Your task to perform on an android device: open device folders in google photos Image 0: 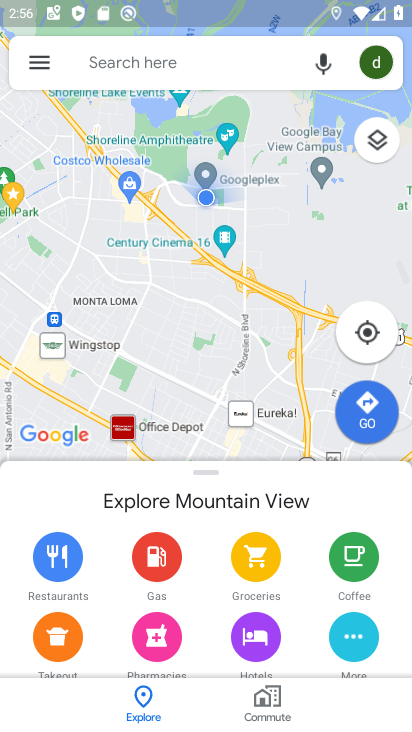
Step 0: press home button
Your task to perform on an android device: open device folders in google photos Image 1: 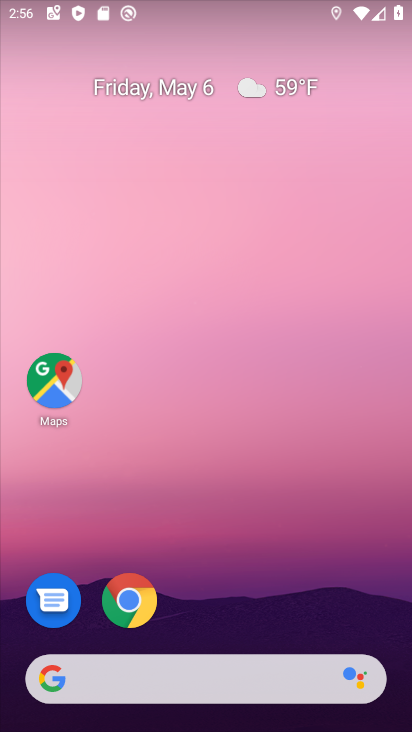
Step 1: drag from (236, 586) to (257, 69)
Your task to perform on an android device: open device folders in google photos Image 2: 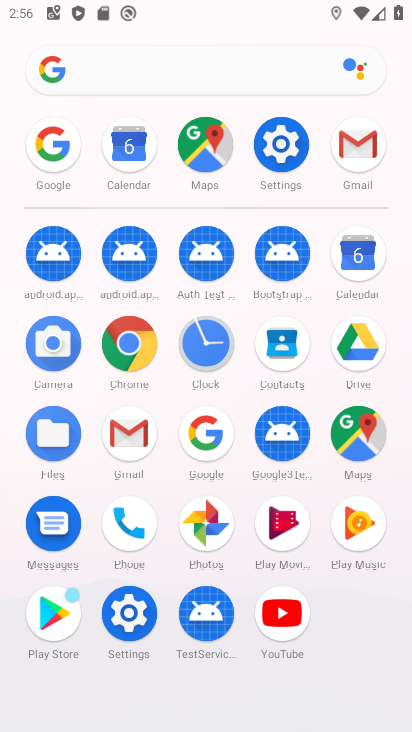
Step 2: click (206, 524)
Your task to perform on an android device: open device folders in google photos Image 3: 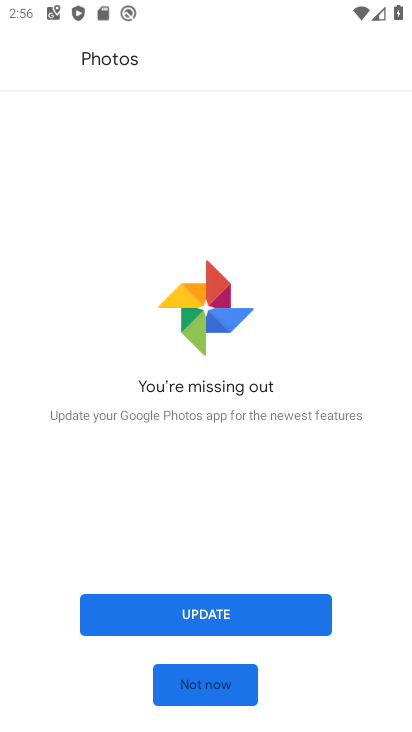
Step 3: click (201, 682)
Your task to perform on an android device: open device folders in google photos Image 4: 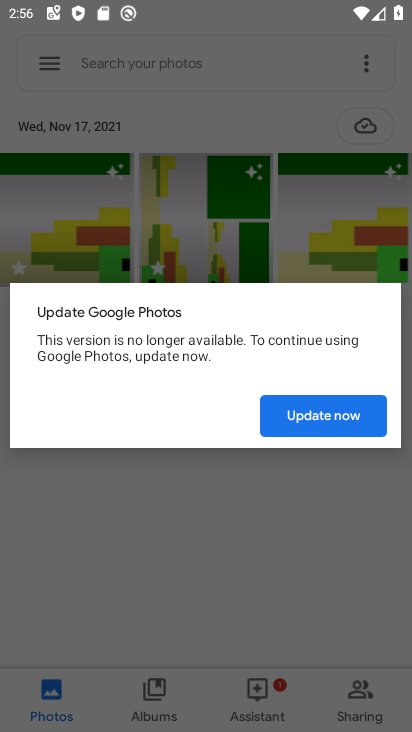
Step 4: click (309, 424)
Your task to perform on an android device: open device folders in google photos Image 5: 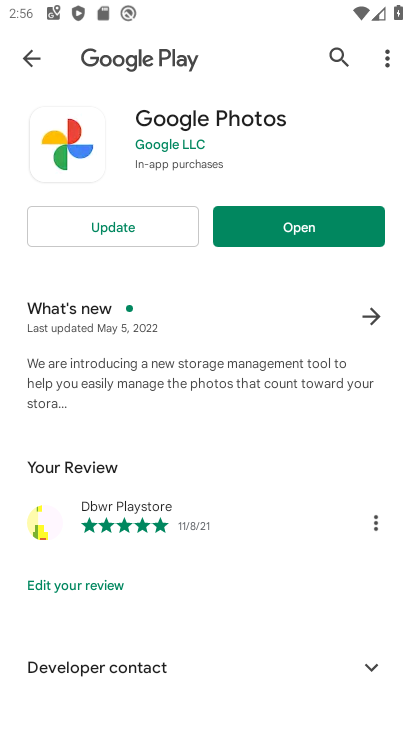
Step 5: click (133, 228)
Your task to perform on an android device: open device folders in google photos Image 6: 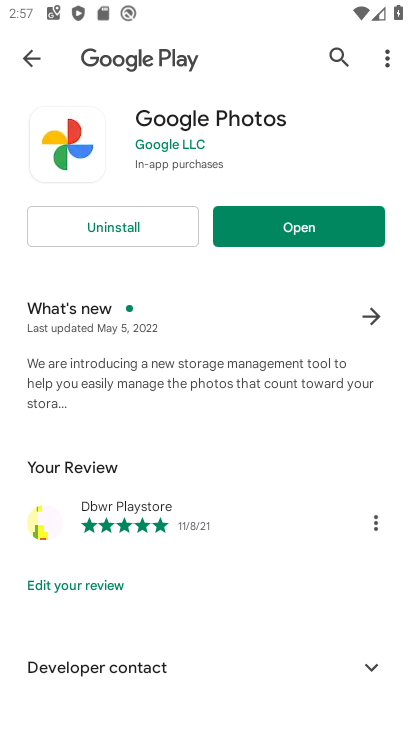
Step 6: click (256, 235)
Your task to perform on an android device: open device folders in google photos Image 7: 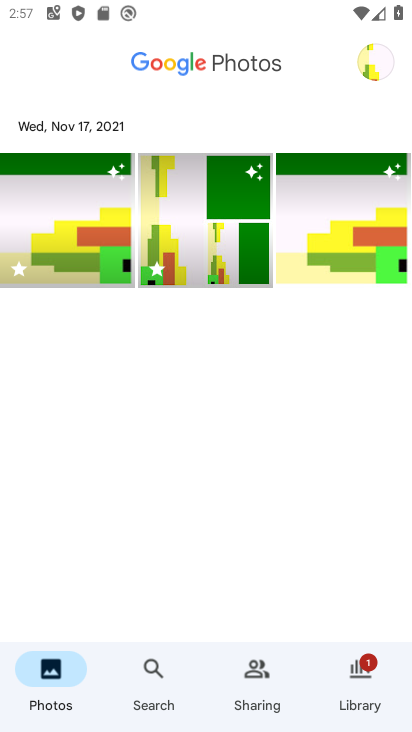
Step 7: click (378, 65)
Your task to perform on an android device: open device folders in google photos Image 8: 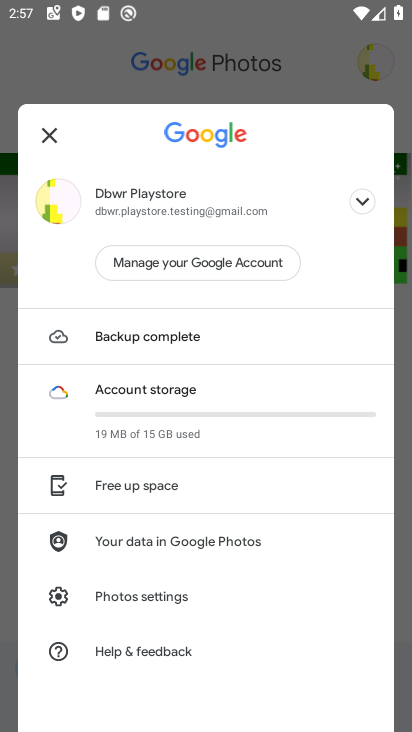
Step 8: task complete